Your task to perform on an android device: Search for sushi restaurants on Maps Image 0: 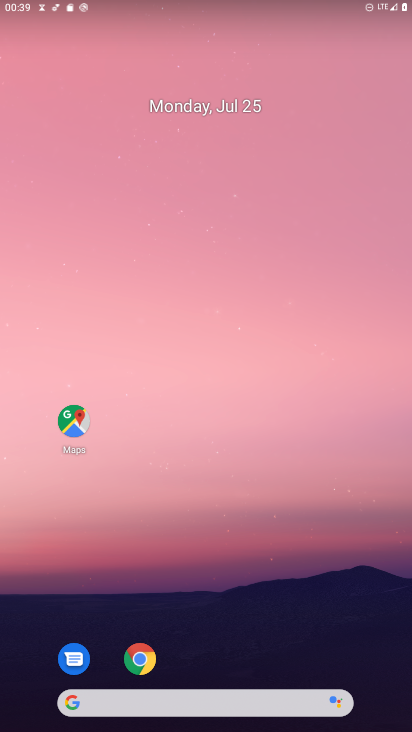
Step 0: drag from (268, 682) to (108, 12)
Your task to perform on an android device: Search for sushi restaurants on Maps Image 1: 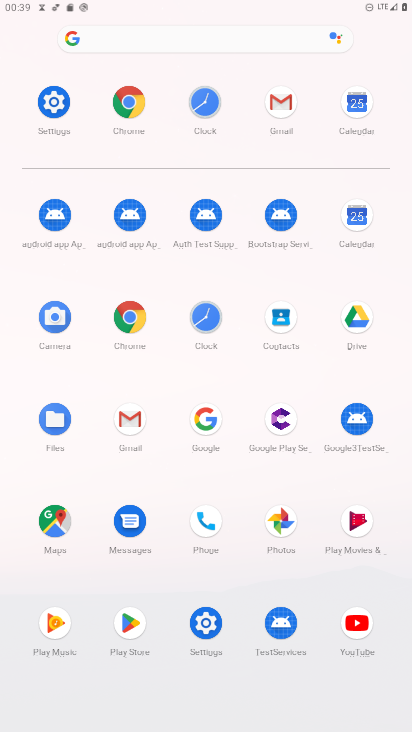
Step 1: click (285, 509)
Your task to perform on an android device: Search for sushi restaurants on Maps Image 2: 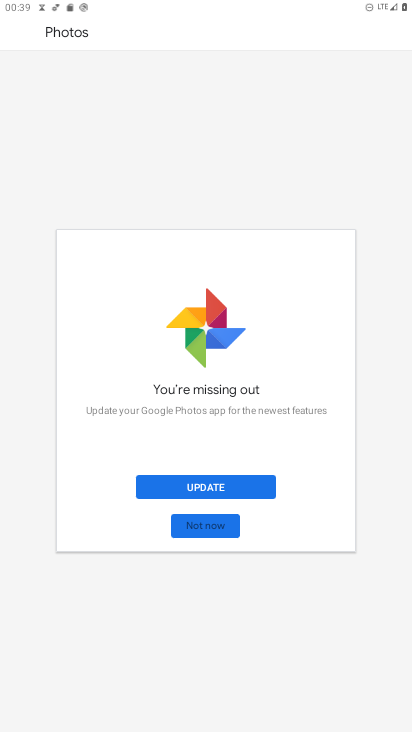
Step 2: click (194, 516)
Your task to perform on an android device: Search for sushi restaurants on Maps Image 3: 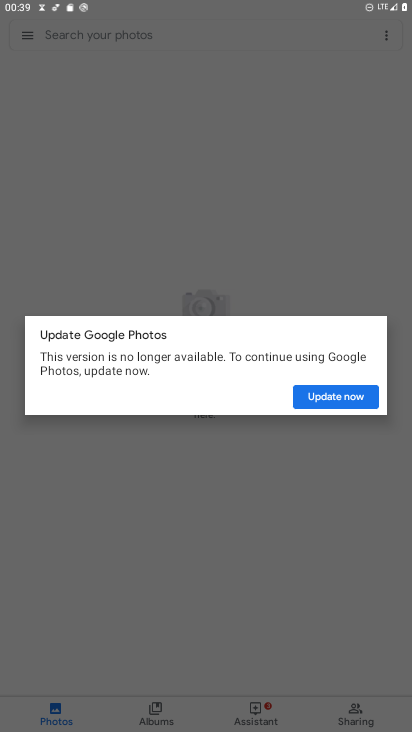
Step 3: click (302, 396)
Your task to perform on an android device: Search for sushi restaurants on Maps Image 4: 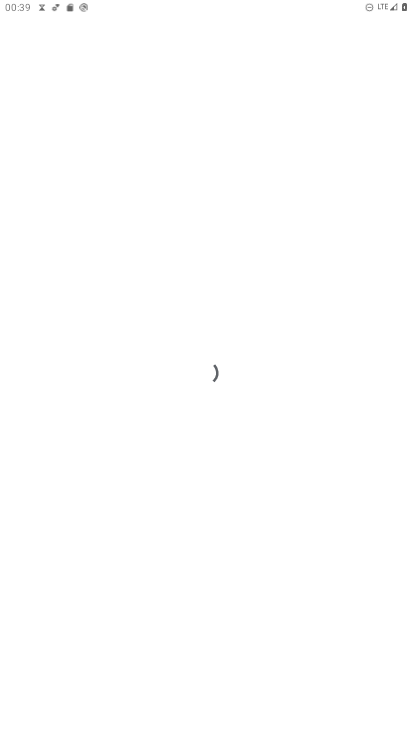
Step 4: press back button
Your task to perform on an android device: Search for sushi restaurants on Maps Image 5: 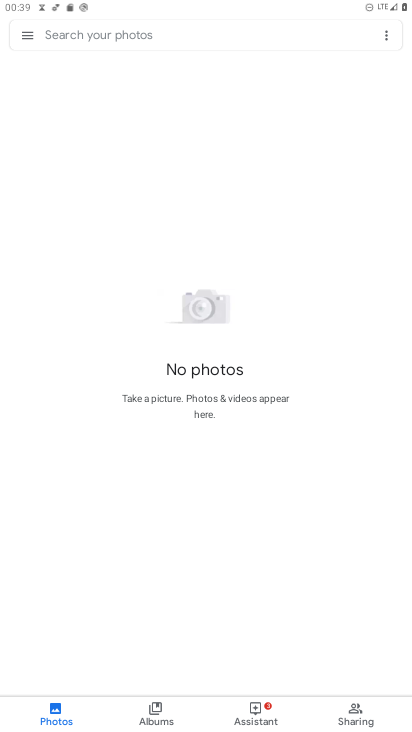
Step 5: click (172, 35)
Your task to perform on an android device: Search for sushi restaurants on Maps Image 6: 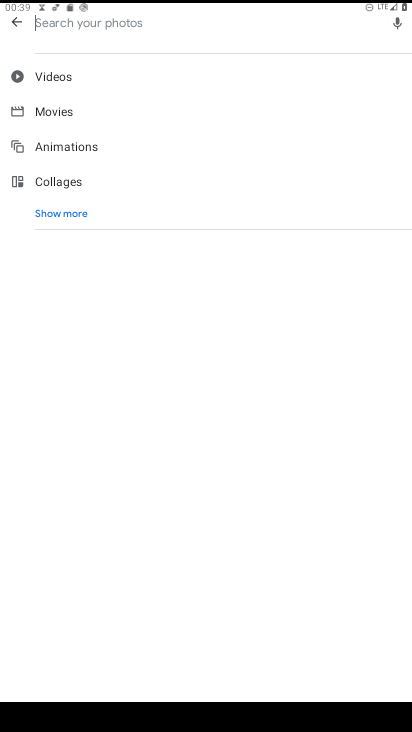
Step 6: click (9, 17)
Your task to perform on an android device: Search for sushi restaurants on Maps Image 7: 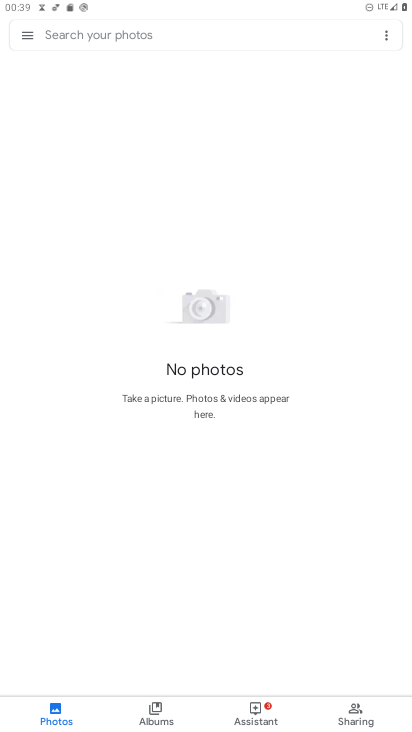
Step 7: press home button
Your task to perform on an android device: Search for sushi restaurants on Maps Image 8: 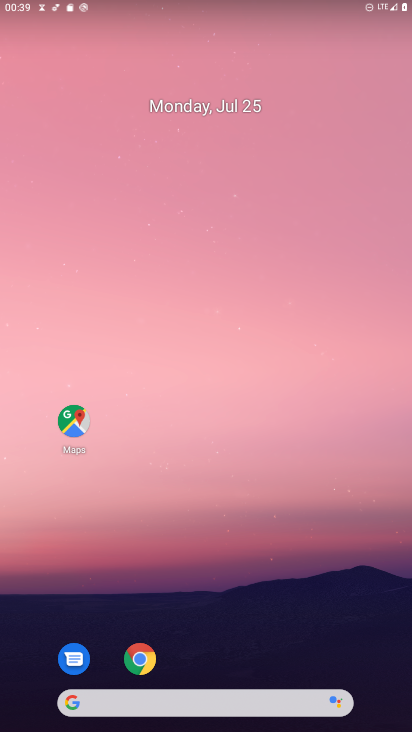
Step 8: click (73, 425)
Your task to perform on an android device: Search for sushi restaurants on Maps Image 9: 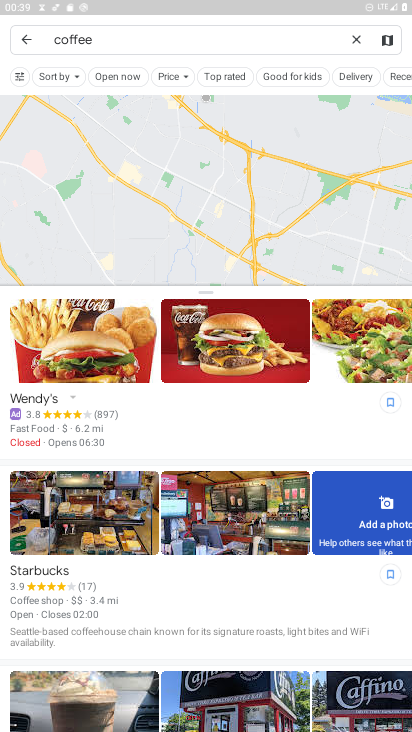
Step 9: click (363, 38)
Your task to perform on an android device: Search for sushi restaurants on Maps Image 10: 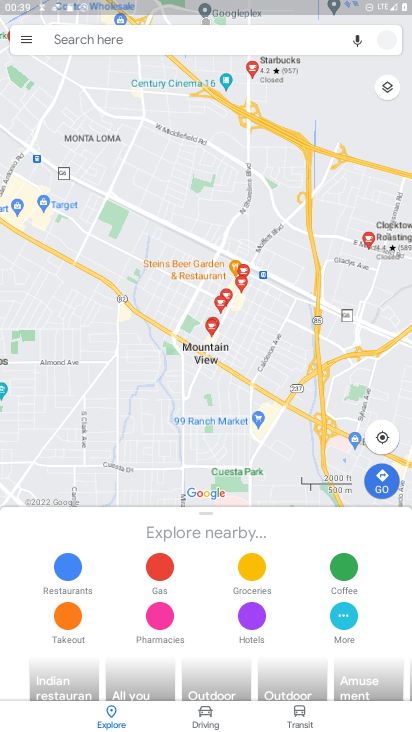
Step 10: click (109, 31)
Your task to perform on an android device: Search for sushi restaurants on Maps Image 11: 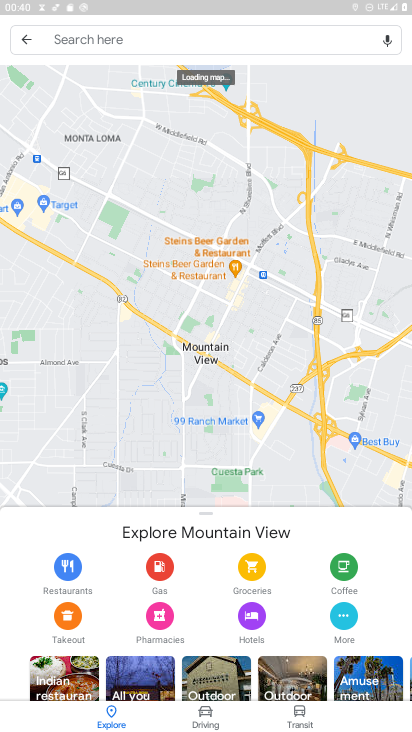
Step 11: click (116, 34)
Your task to perform on an android device: Search for sushi restaurants on Maps Image 12: 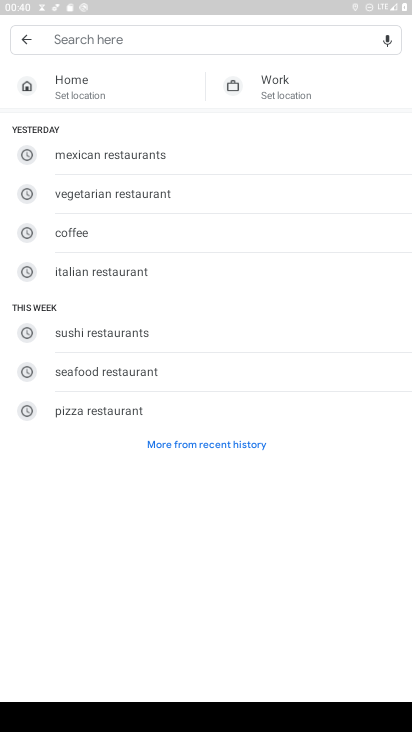
Step 12: click (145, 337)
Your task to perform on an android device: Search for sushi restaurants on Maps Image 13: 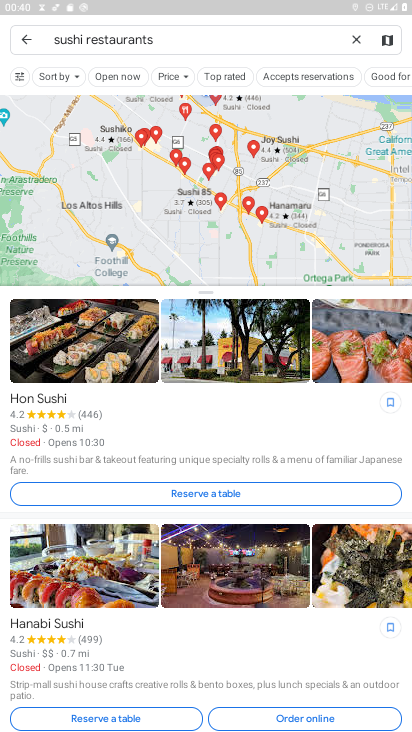
Step 13: task complete